Your task to perform on an android device: uninstall "AliExpress" Image 0: 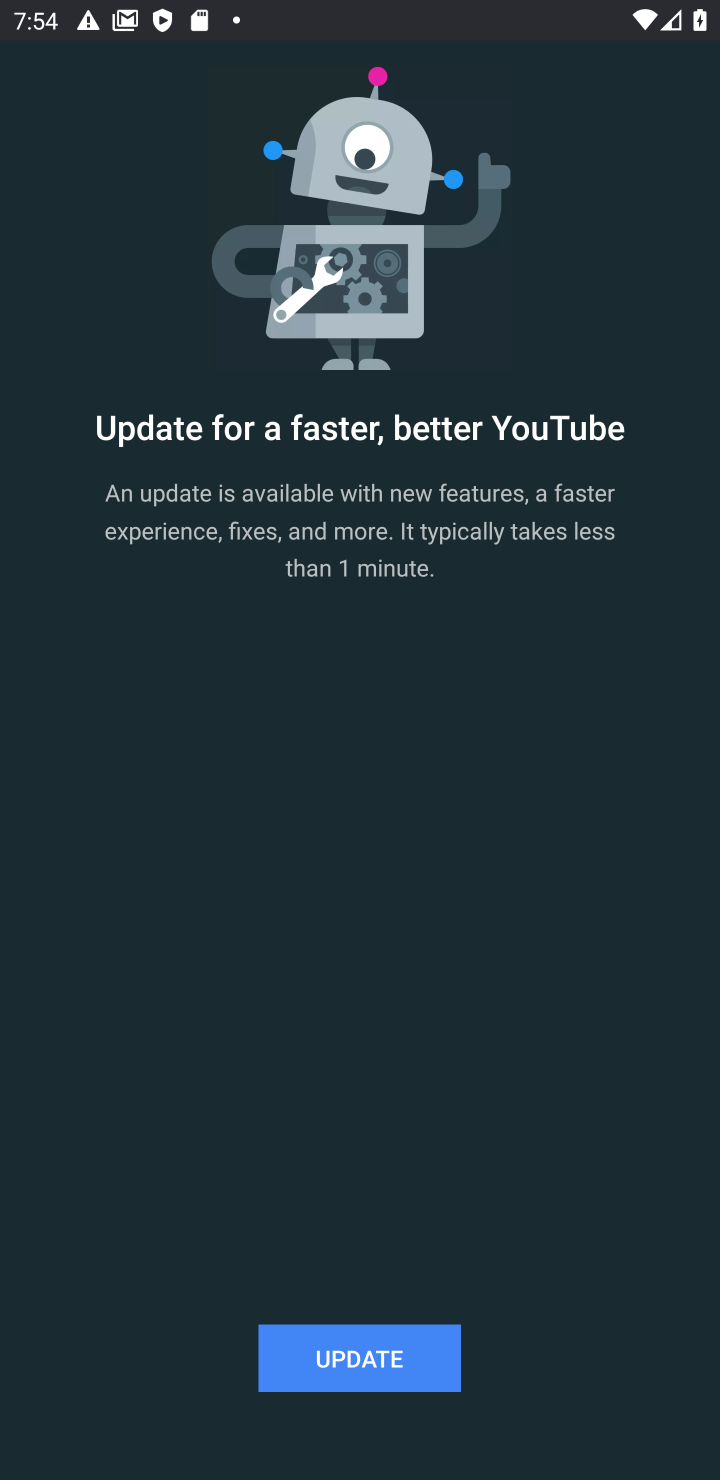
Step 0: press home button
Your task to perform on an android device: uninstall "AliExpress" Image 1: 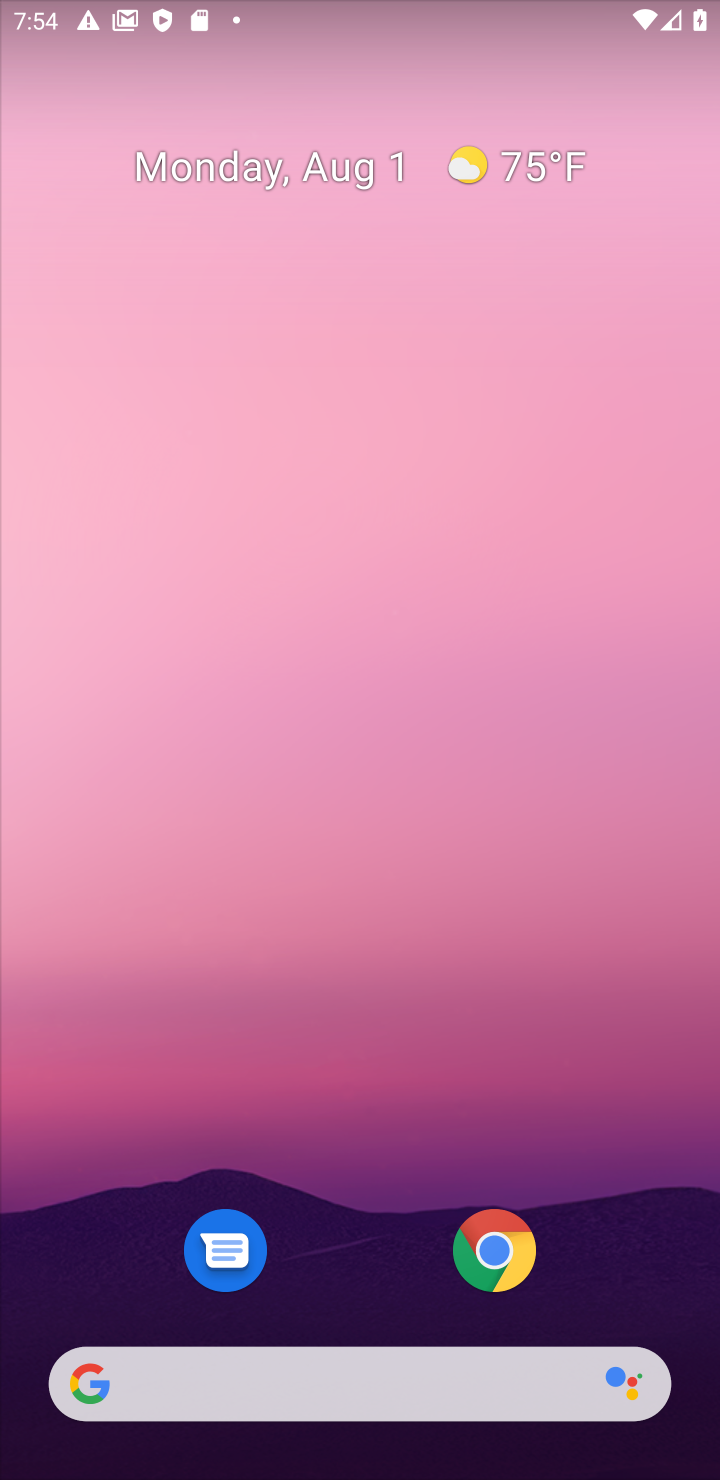
Step 1: drag from (418, 1210) to (262, 451)
Your task to perform on an android device: uninstall "AliExpress" Image 2: 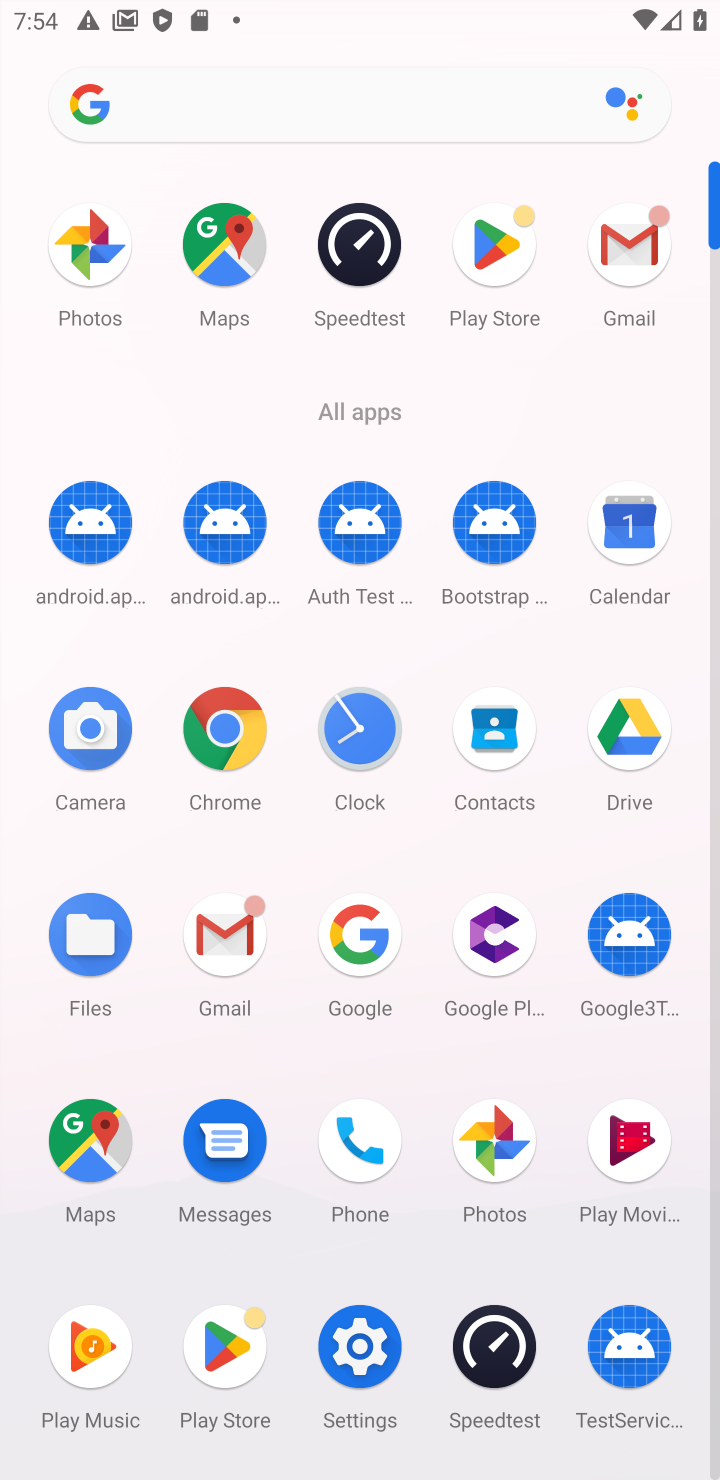
Step 2: click (241, 1340)
Your task to perform on an android device: uninstall "AliExpress" Image 3: 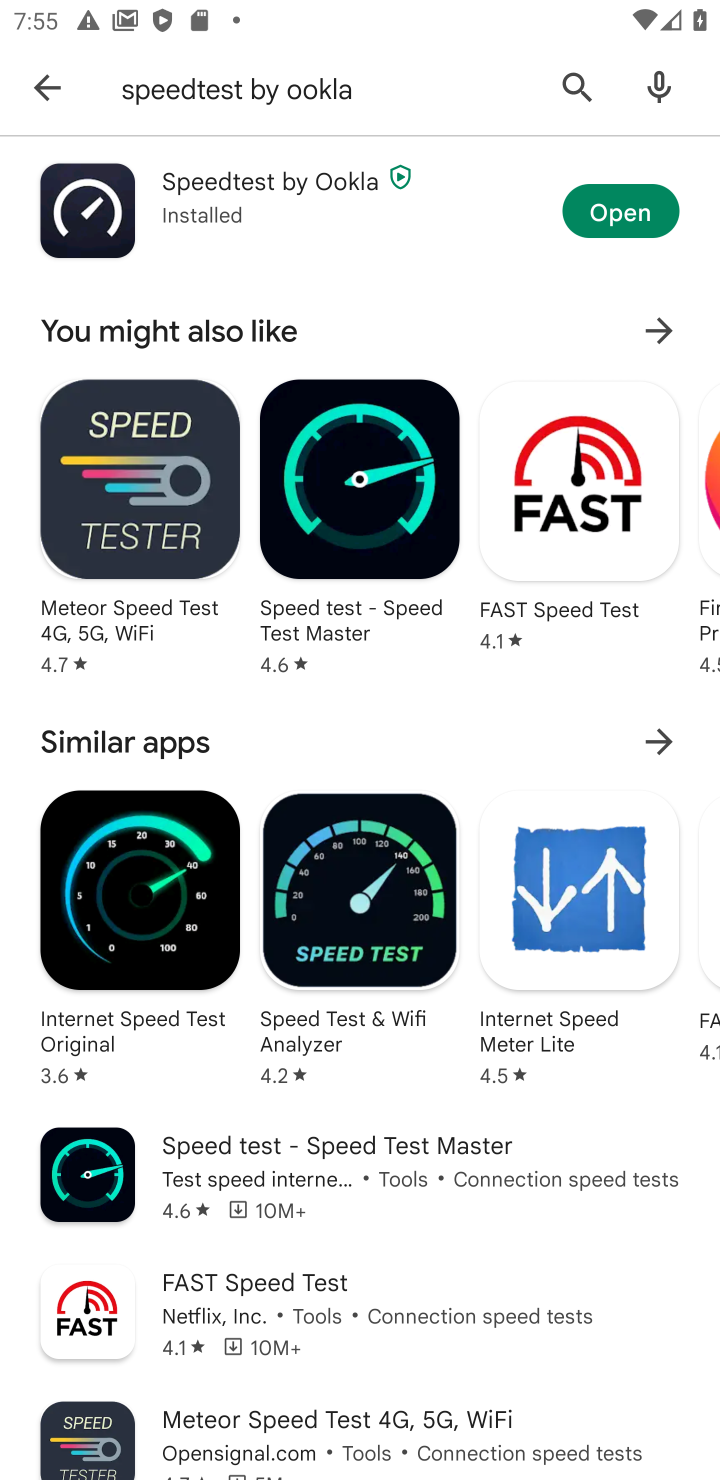
Step 3: click (562, 86)
Your task to perform on an android device: uninstall "AliExpress" Image 4: 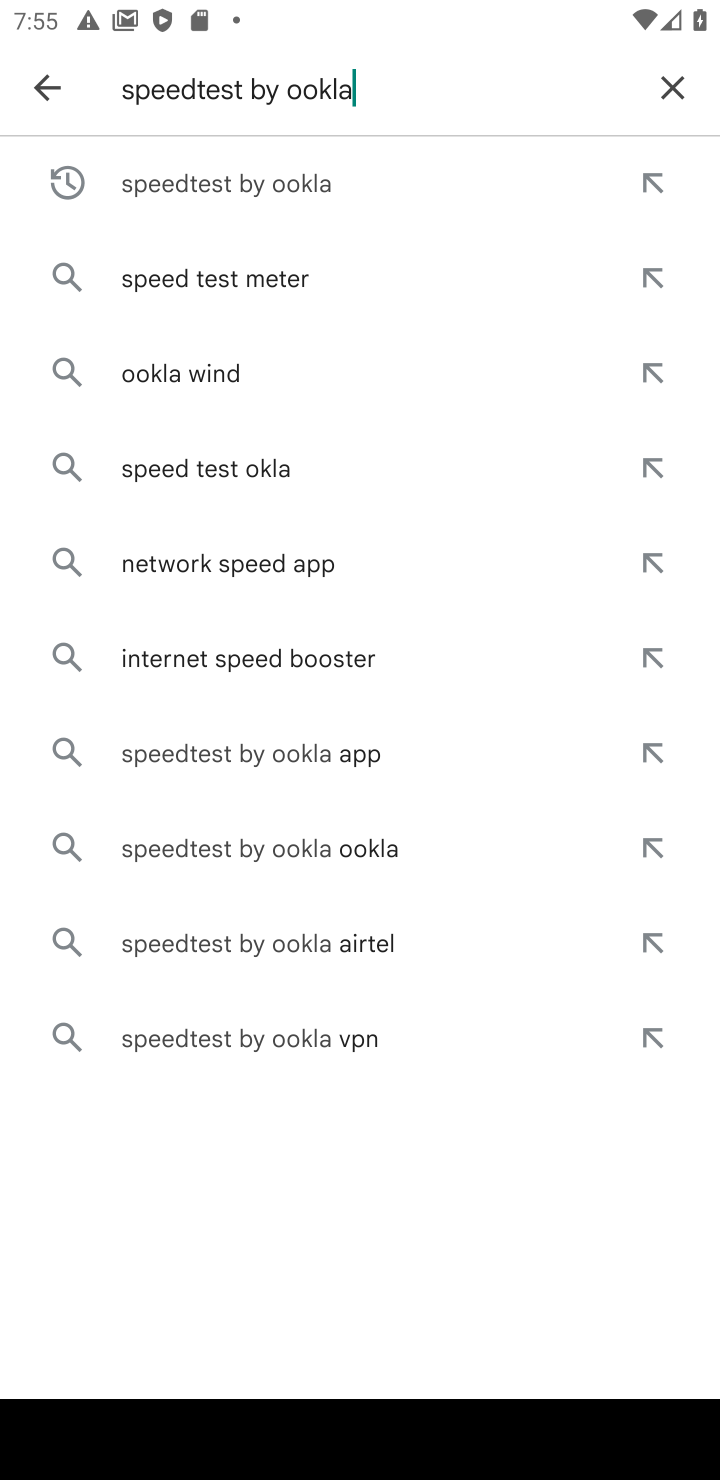
Step 4: click (681, 93)
Your task to perform on an android device: uninstall "AliExpress" Image 5: 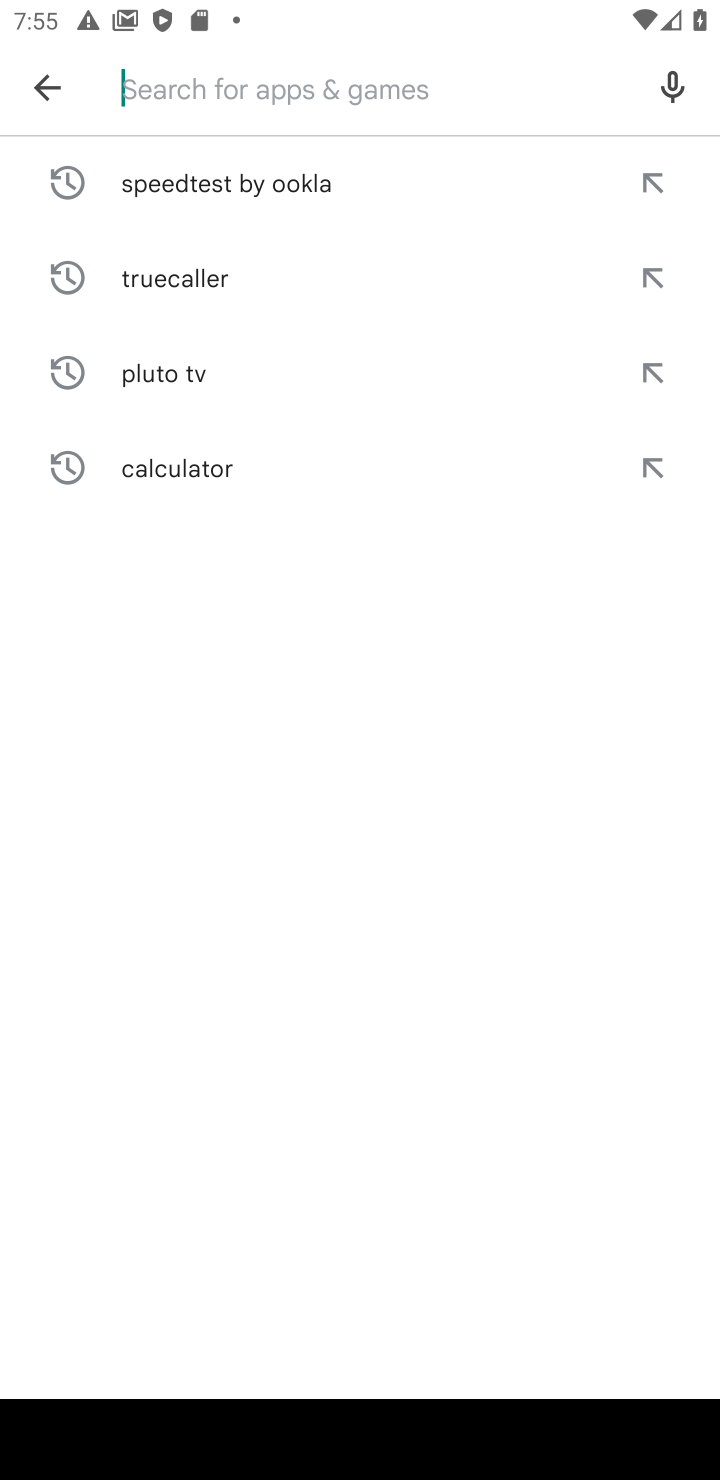
Step 5: type "aliexpress"
Your task to perform on an android device: uninstall "AliExpress" Image 6: 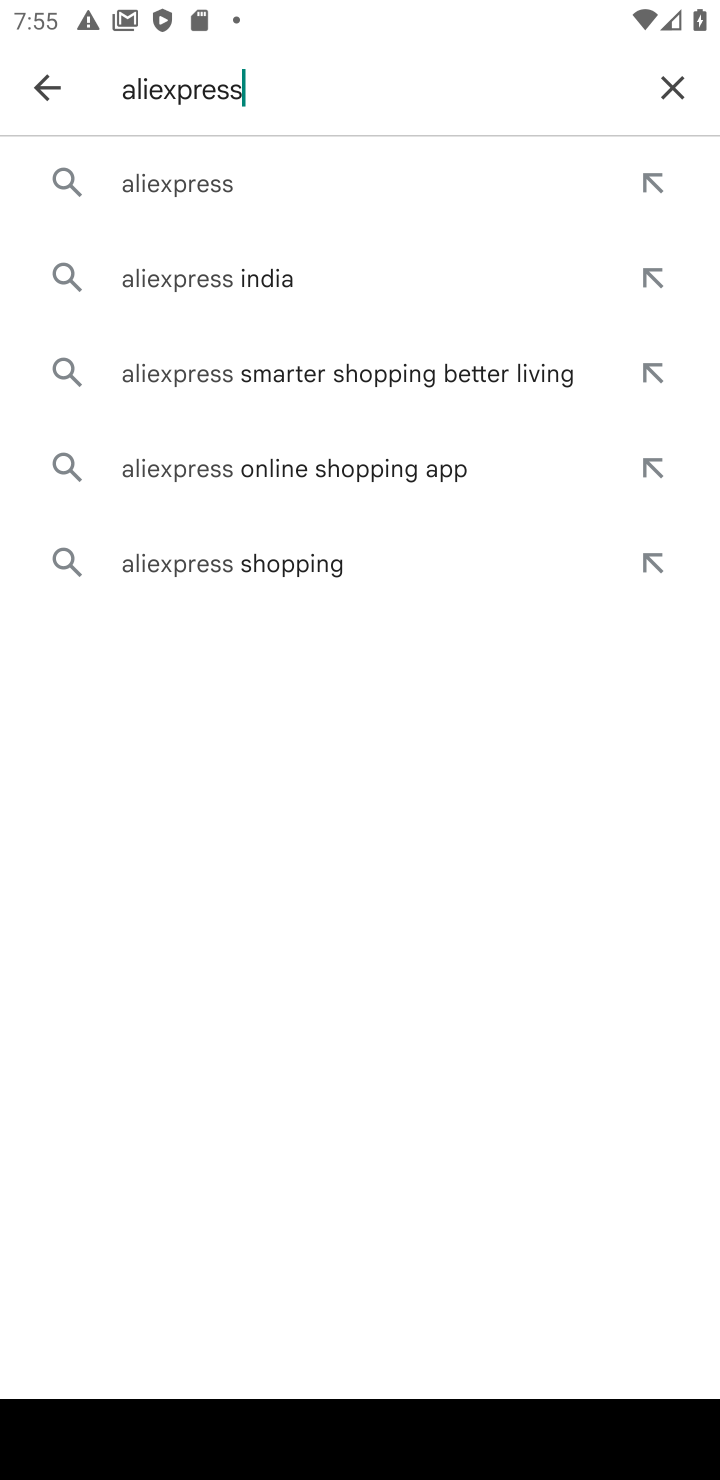
Step 6: click (175, 167)
Your task to perform on an android device: uninstall "AliExpress" Image 7: 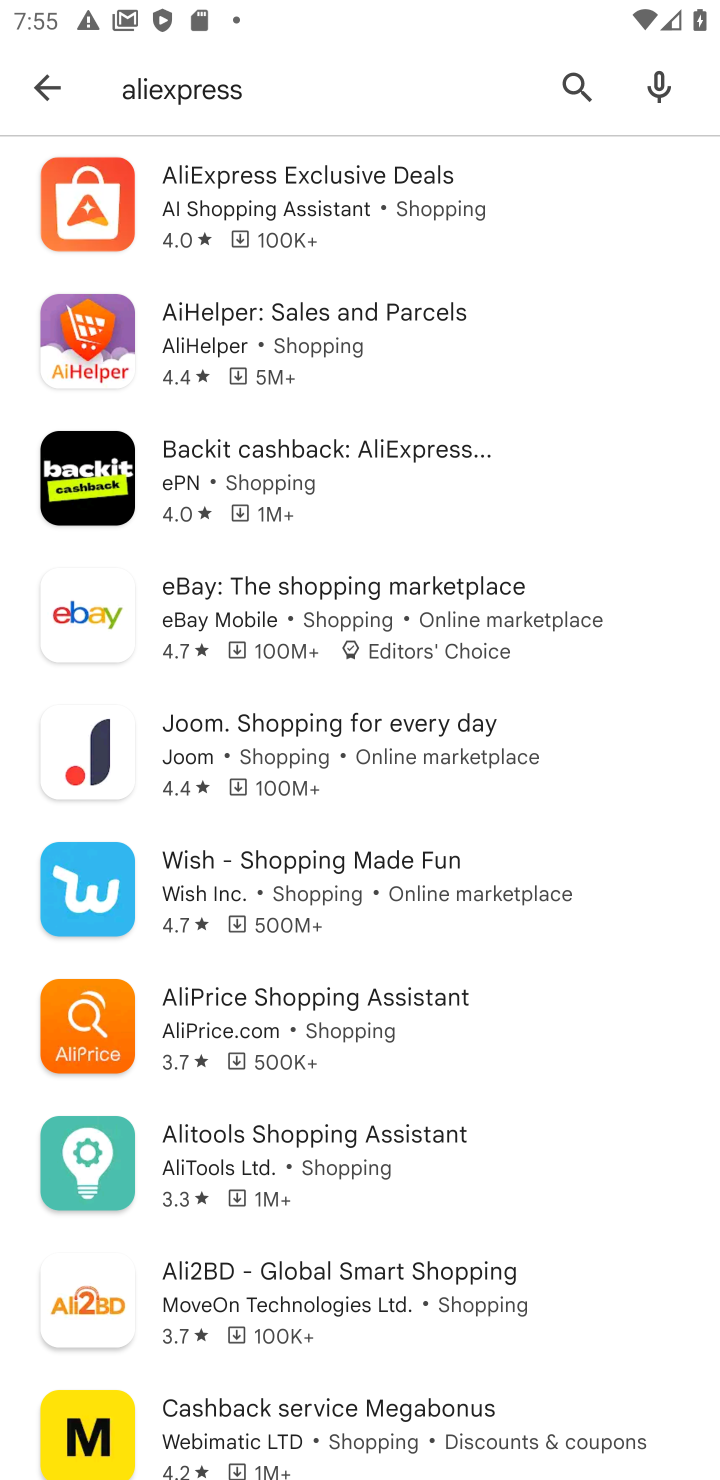
Step 7: click (314, 218)
Your task to perform on an android device: uninstall "AliExpress" Image 8: 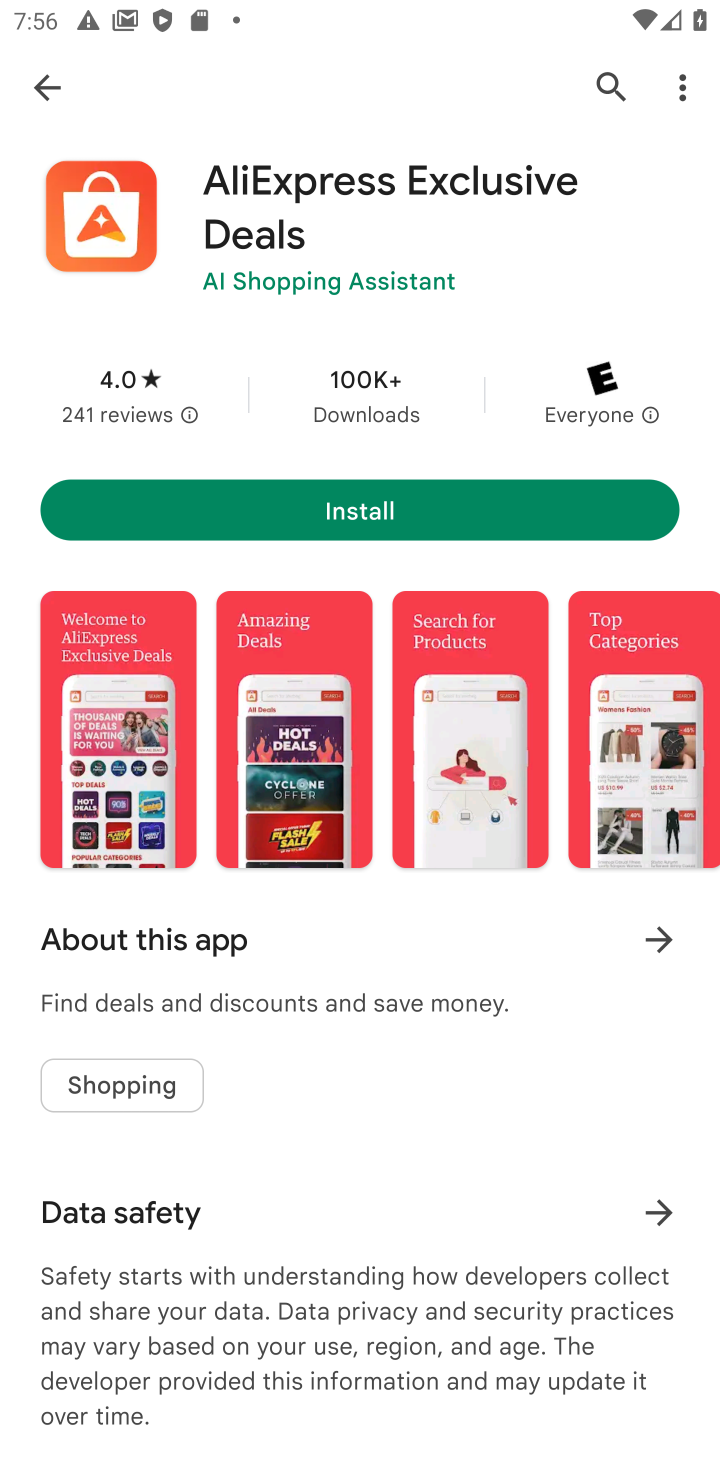
Step 8: task complete